Your task to perform on an android device: check out phone information Image 0: 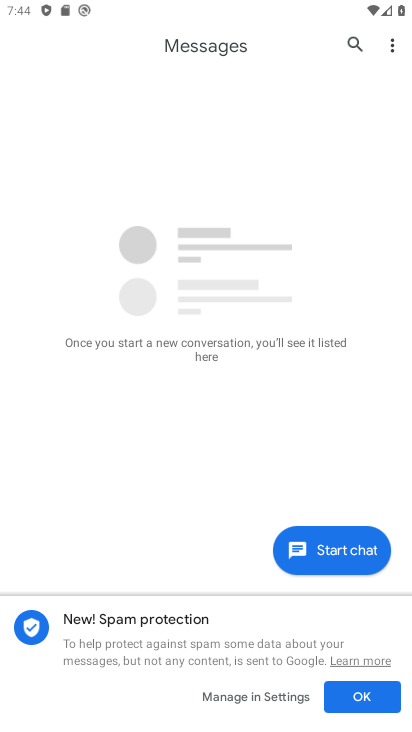
Step 0: press home button
Your task to perform on an android device: check out phone information Image 1: 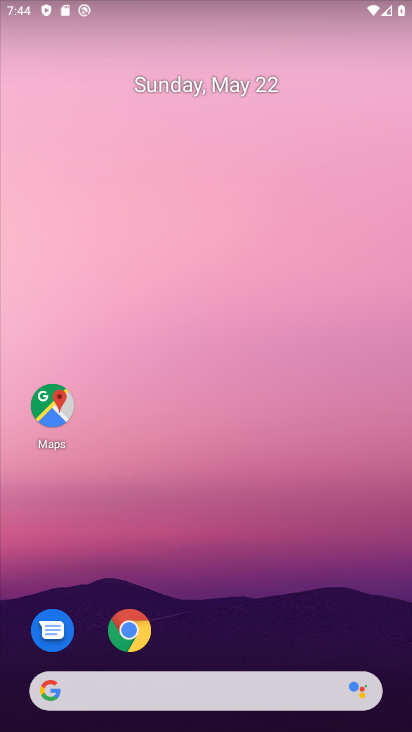
Step 1: drag from (247, 620) to (286, 173)
Your task to perform on an android device: check out phone information Image 2: 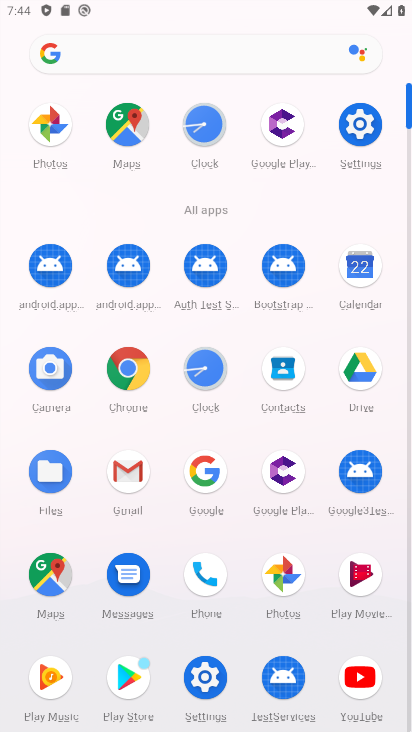
Step 2: click (348, 142)
Your task to perform on an android device: check out phone information Image 3: 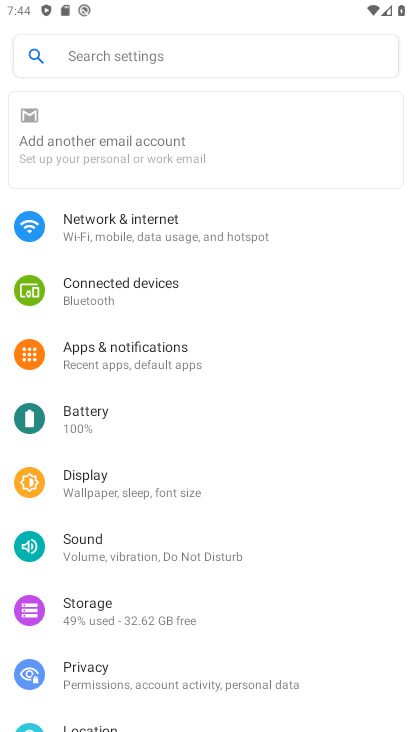
Step 3: drag from (199, 594) to (224, 277)
Your task to perform on an android device: check out phone information Image 4: 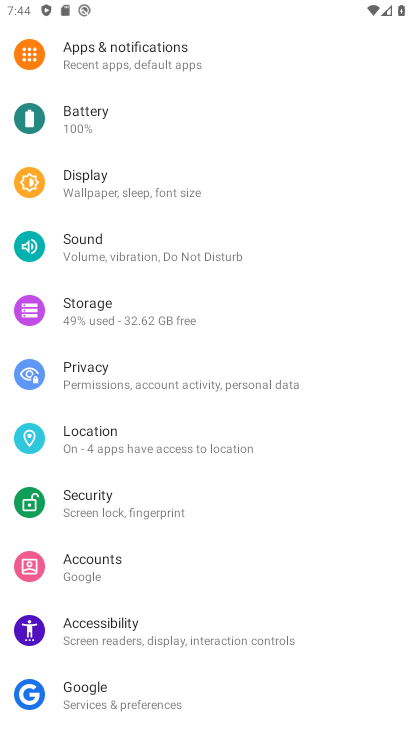
Step 4: click (224, 277)
Your task to perform on an android device: check out phone information Image 5: 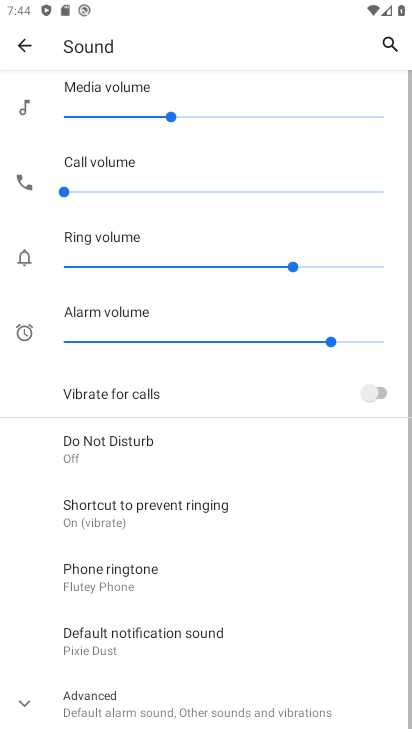
Step 5: task complete